Your task to perform on an android device: Go to Amazon Image 0: 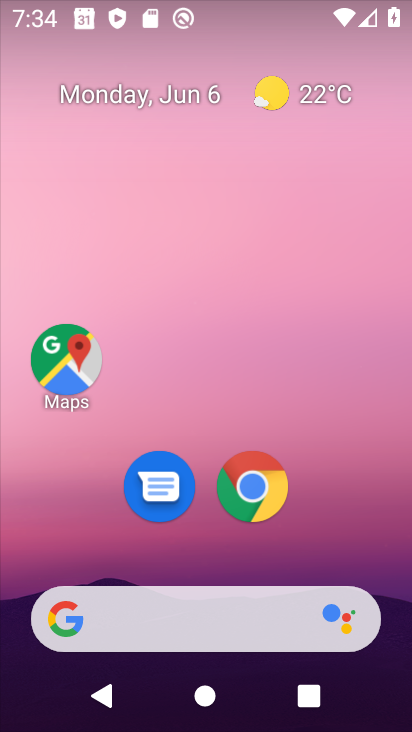
Step 0: drag from (392, 620) to (238, 75)
Your task to perform on an android device: Go to Amazon Image 1: 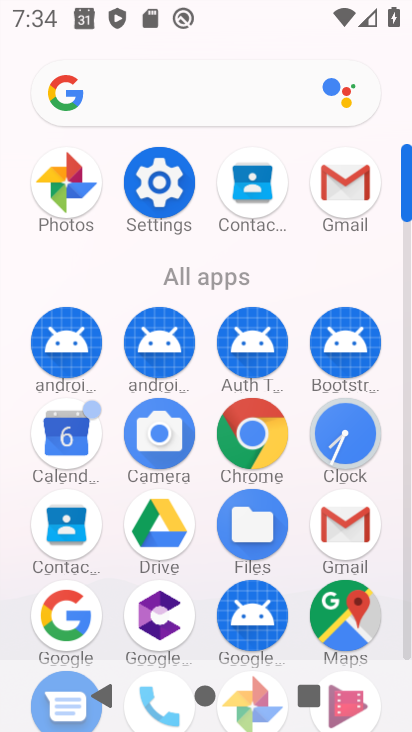
Step 1: click (69, 627)
Your task to perform on an android device: Go to Amazon Image 2: 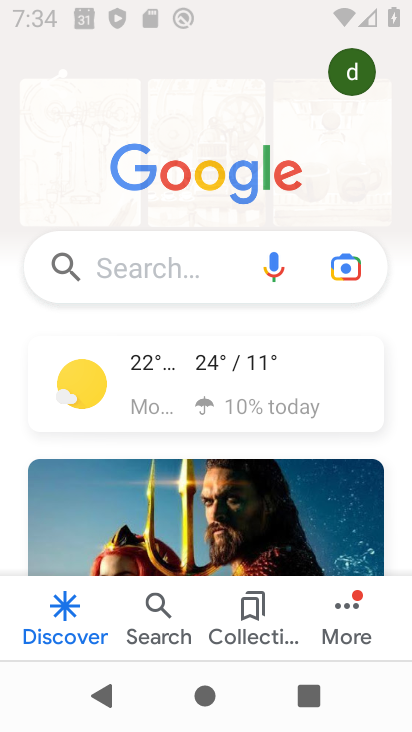
Step 2: click (130, 253)
Your task to perform on an android device: Go to Amazon Image 3: 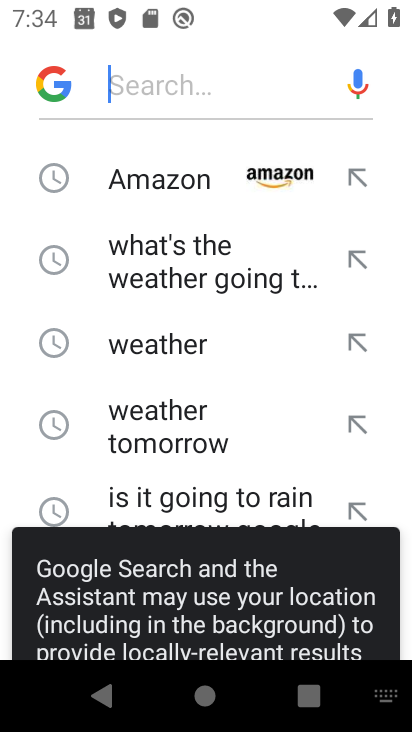
Step 3: click (142, 183)
Your task to perform on an android device: Go to Amazon Image 4: 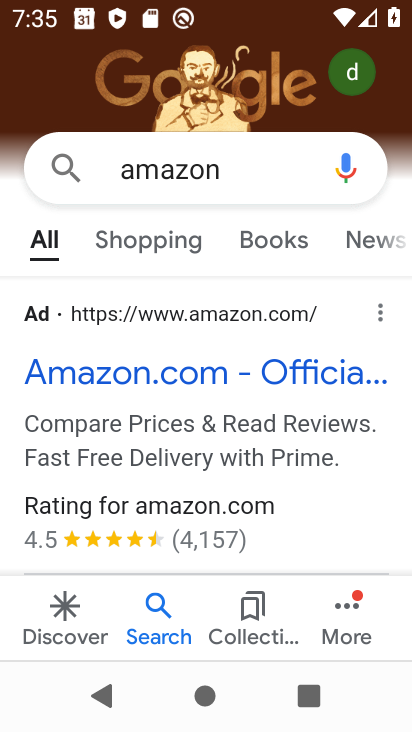
Step 4: task complete